Your task to perform on an android device: turn on wifi Image 0: 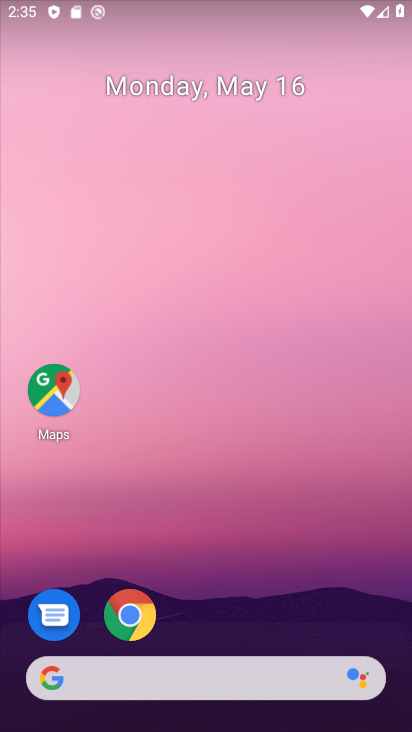
Step 0: drag from (333, 639) to (387, 29)
Your task to perform on an android device: turn on wifi Image 1: 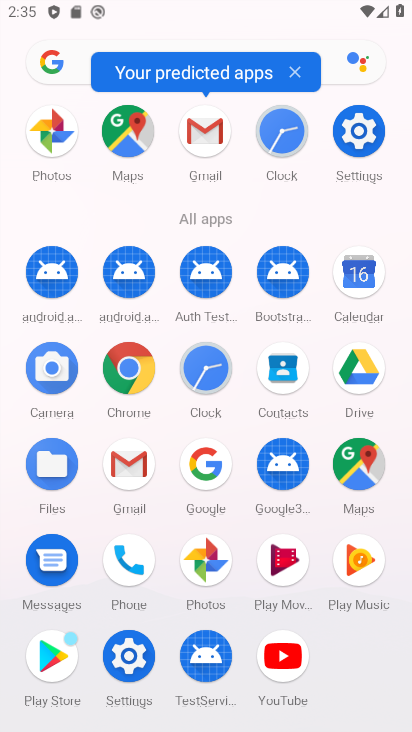
Step 1: click (365, 136)
Your task to perform on an android device: turn on wifi Image 2: 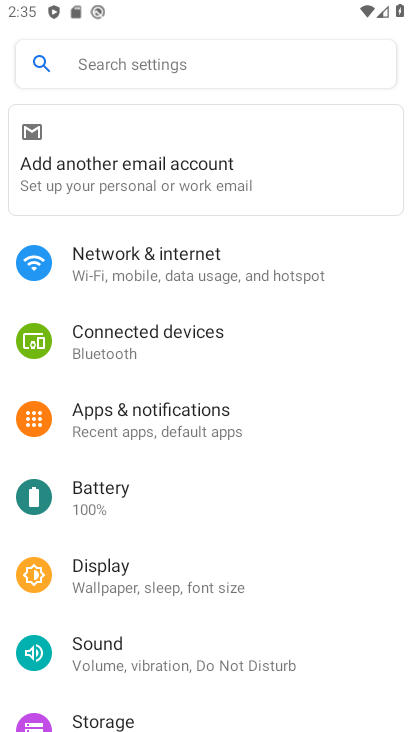
Step 2: click (216, 266)
Your task to perform on an android device: turn on wifi Image 3: 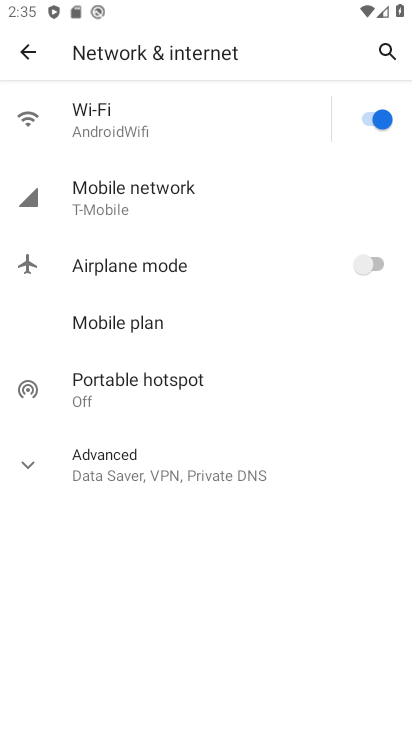
Step 3: task complete